Your task to perform on an android device: turn off location Image 0: 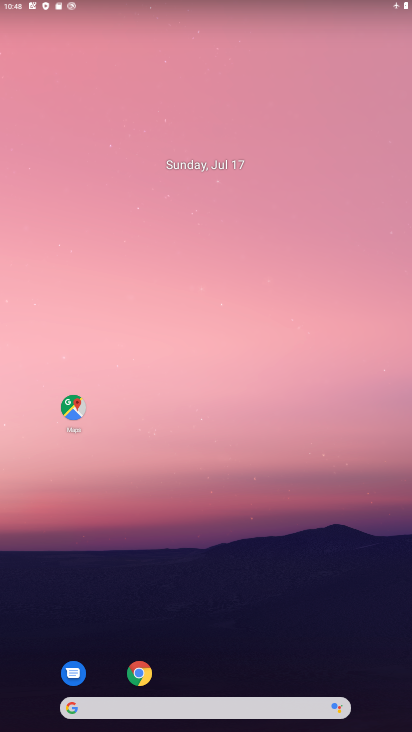
Step 0: drag from (206, 179) to (206, 110)
Your task to perform on an android device: turn off location Image 1: 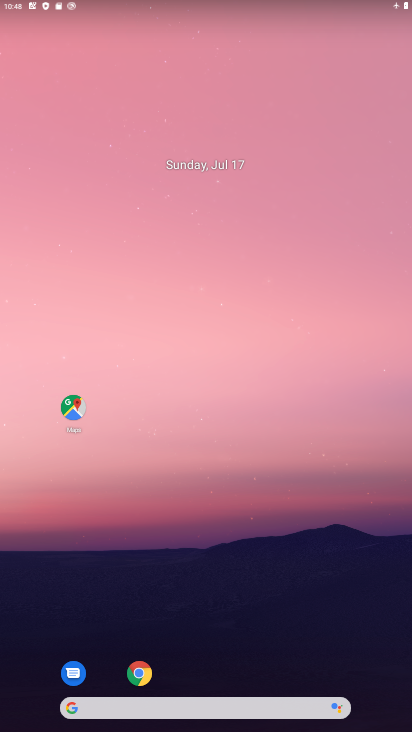
Step 1: drag from (216, 702) to (188, 49)
Your task to perform on an android device: turn off location Image 2: 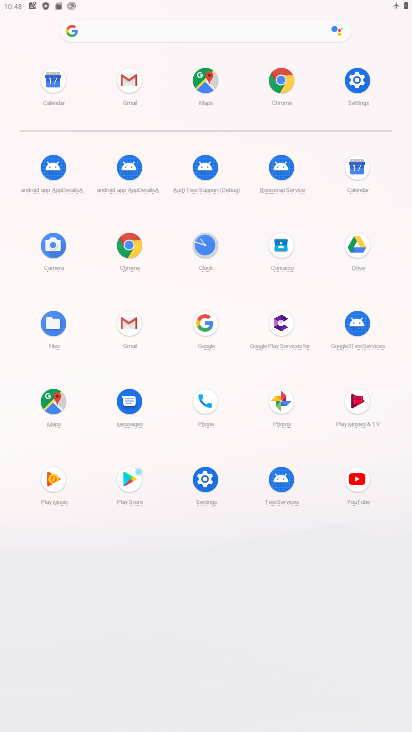
Step 2: click (358, 80)
Your task to perform on an android device: turn off location Image 3: 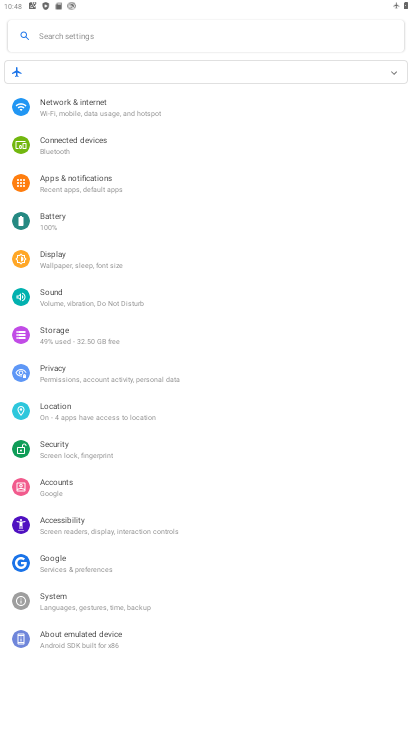
Step 3: click (111, 410)
Your task to perform on an android device: turn off location Image 4: 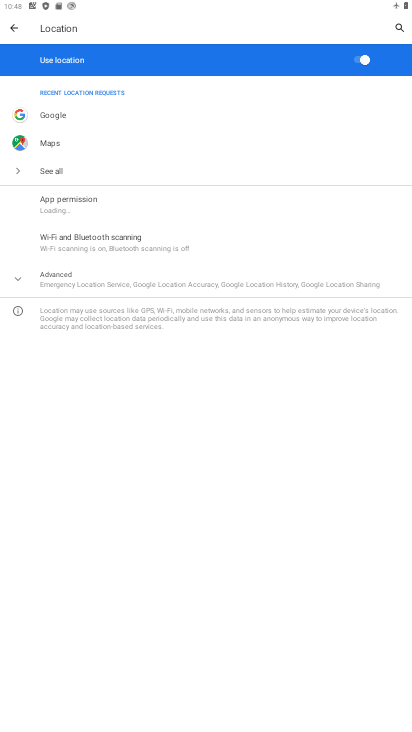
Step 4: click (366, 56)
Your task to perform on an android device: turn off location Image 5: 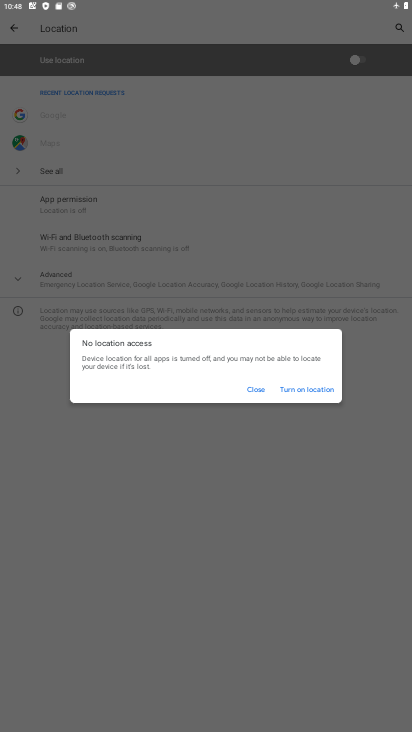
Step 5: click (239, 380)
Your task to perform on an android device: turn off location Image 6: 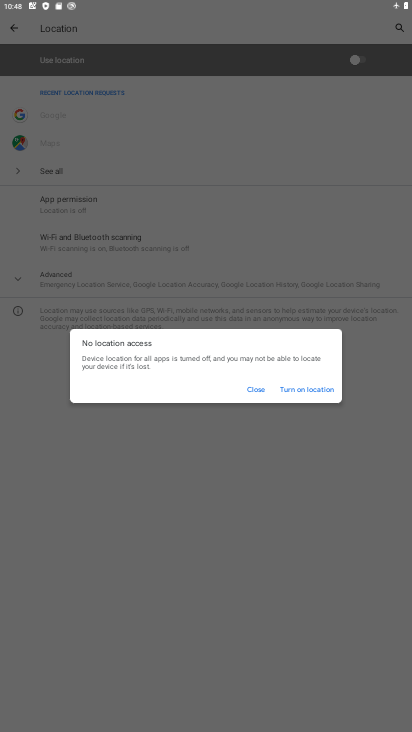
Step 6: click (253, 389)
Your task to perform on an android device: turn off location Image 7: 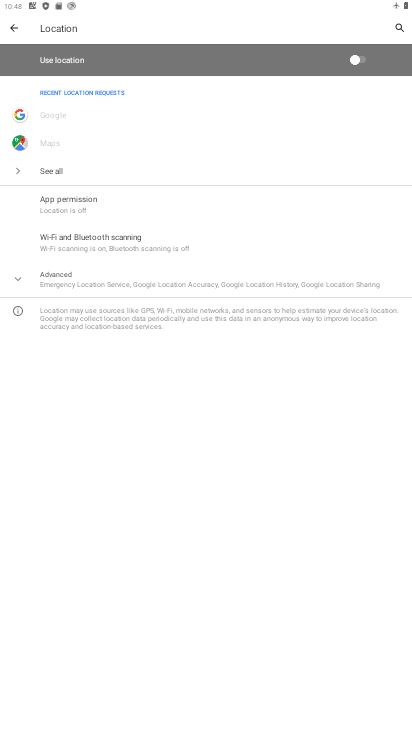
Step 7: task complete